Your task to perform on an android device: Go to eBay Image 0: 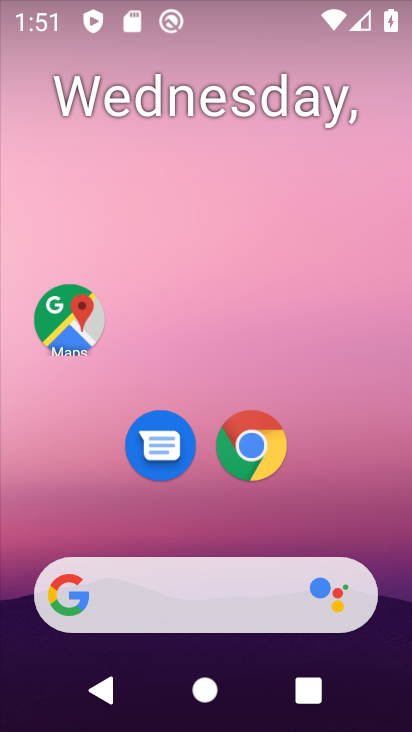
Step 0: click (234, 452)
Your task to perform on an android device: Go to eBay Image 1: 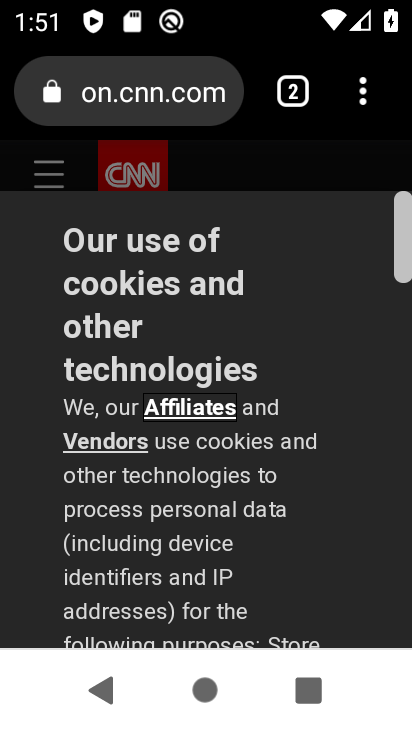
Step 1: click (295, 100)
Your task to perform on an android device: Go to eBay Image 2: 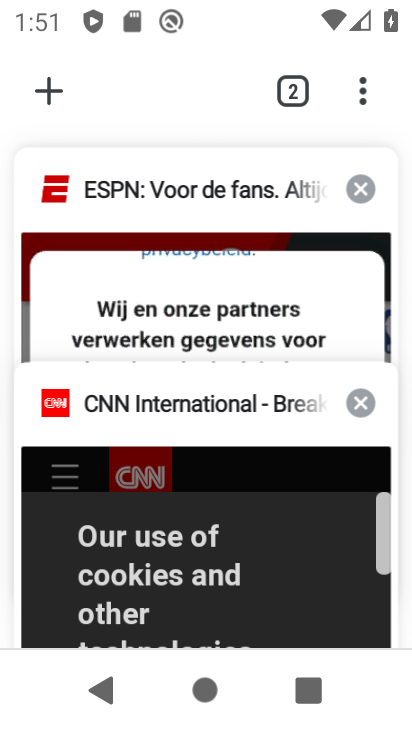
Step 2: click (47, 83)
Your task to perform on an android device: Go to eBay Image 3: 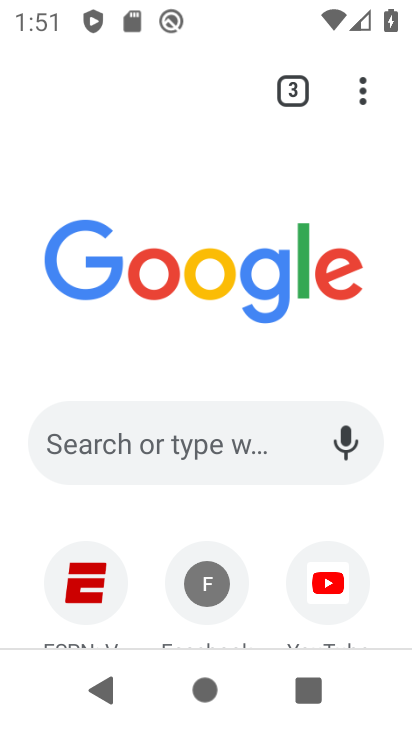
Step 3: drag from (212, 533) to (221, 295)
Your task to perform on an android device: Go to eBay Image 4: 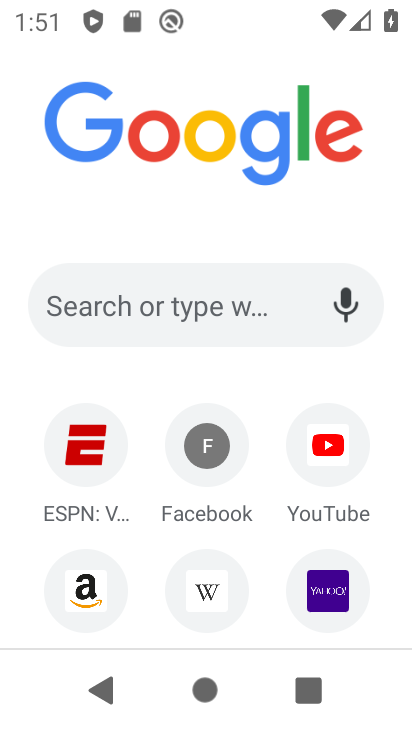
Step 4: click (157, 316)
Your task to perform on an android device: Go to eBay Image 5: 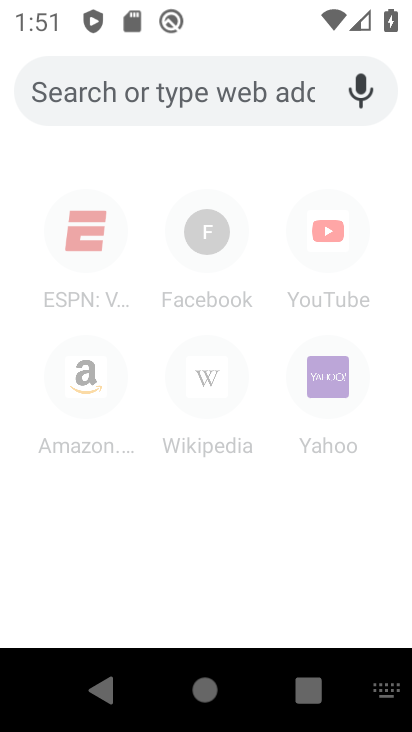
Step 5: type "eBay"
Your task to perform on an android device: Go to eBay Image 6: 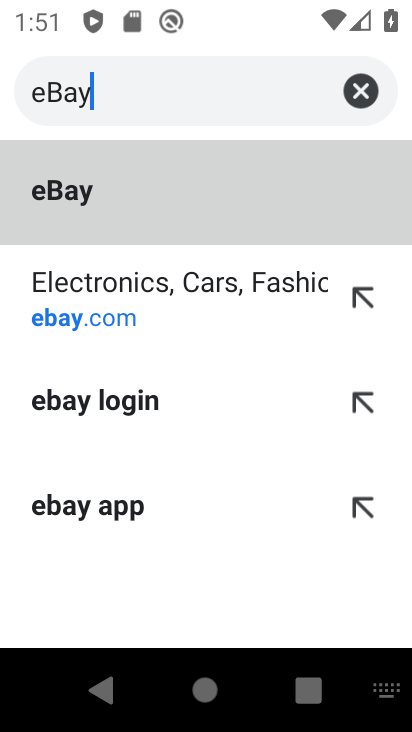
Step 6: click (97, 186)
Your task to perform on an android device: Go to eBay Image 7: 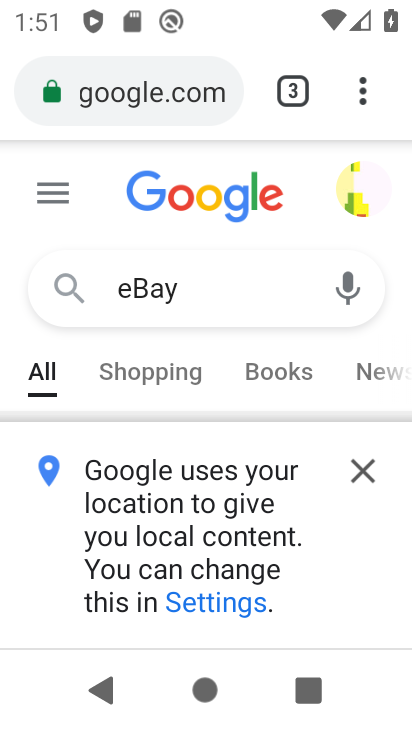
Step 7: click (350, 460)
Your task to perform on an android device: Go to eBay Image 8: 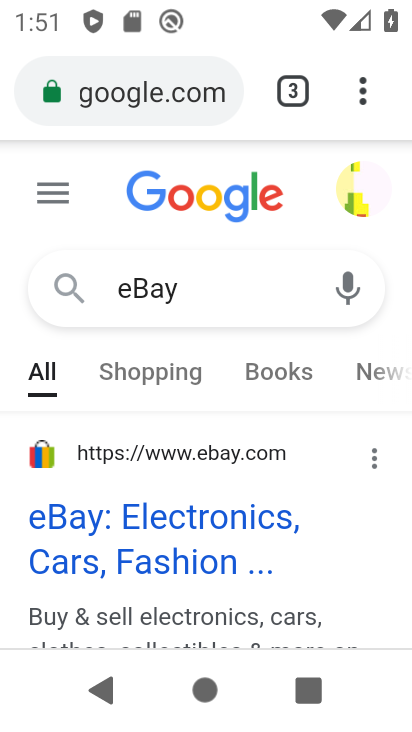
Step 8: click (136, 497)
Your task to perform on an android device: Go to eBay Image 9: 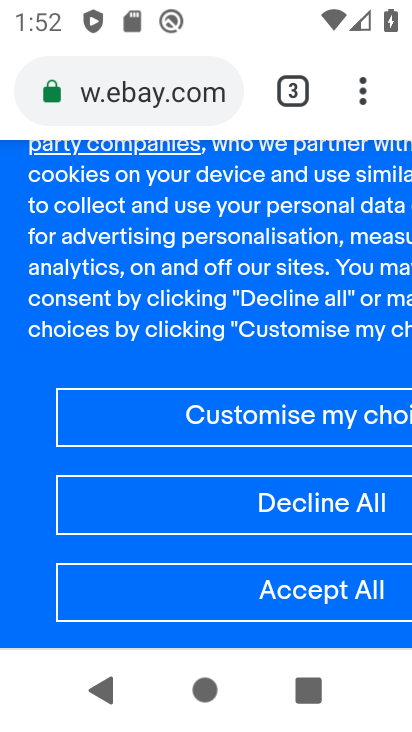
Step 9: task complete